Your task to perform on an android device: change the clock display to digital Image 0: 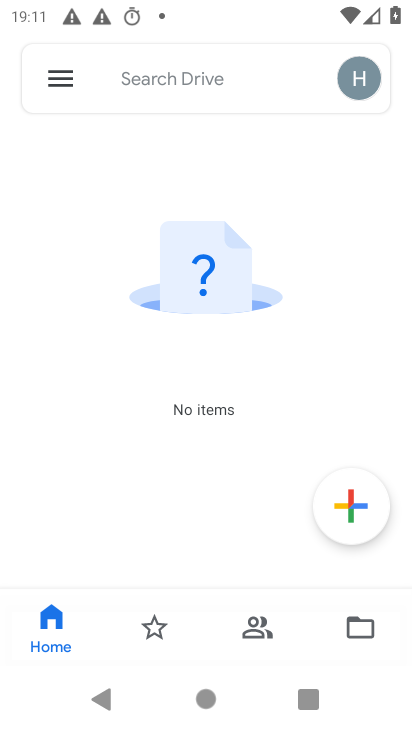
Step 0: press home button
Your task to perform on an android device: change the clock display to digital Image 1: 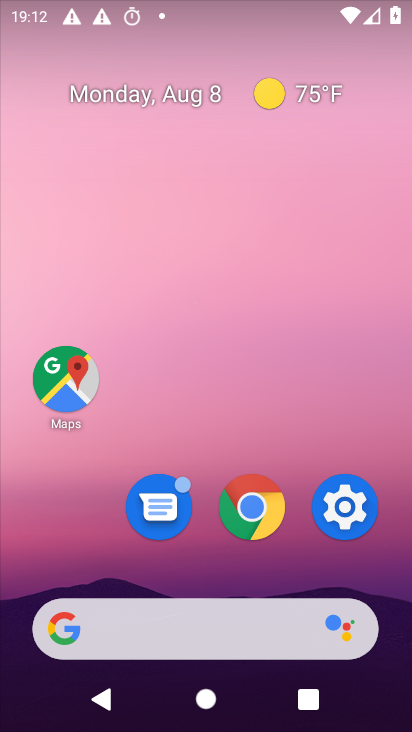
Step 1: drag from (228, 671) to (244, 173)
Your task to perform on an android device: change the clock display to digital Image 2: 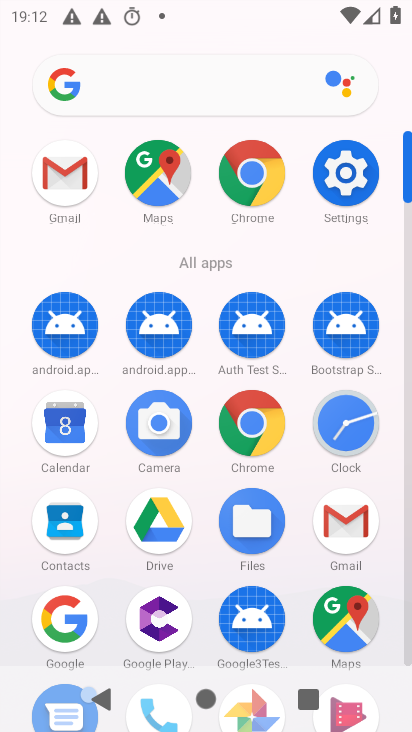
Step 2: click (345, 176)
Your task to perform on an android device: change the clock display to digital Image 3: 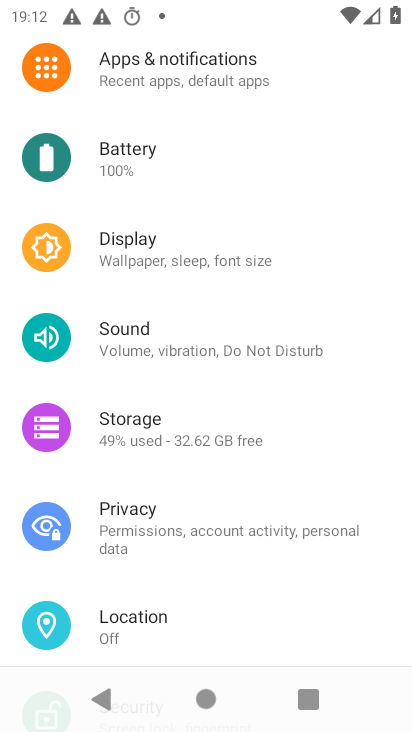
Step 3: press home button
Your task to perform on an android device: change the clock display to digital Image 4: 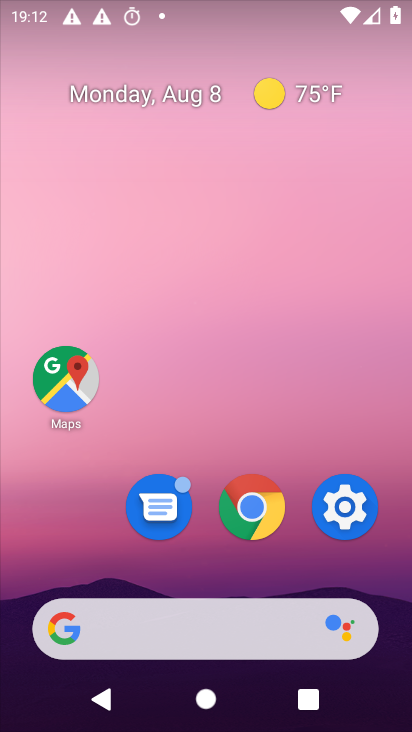
Step 4: drag from (289, 655) to (223, 217)
Your task to perform on an android device: change the clock display to digital Image 5: 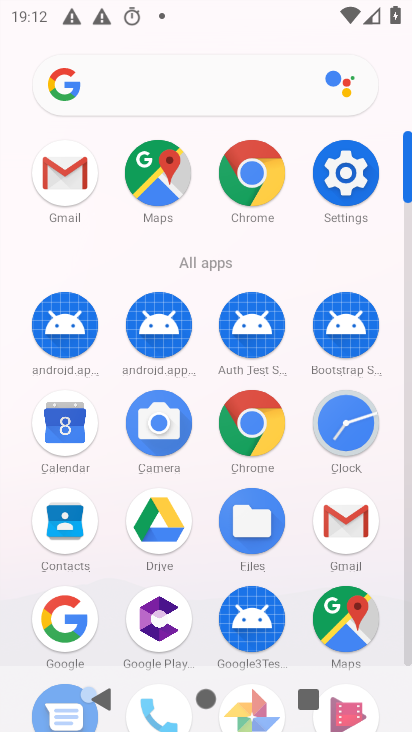
Step 5: click (359, 432)
Your task to perform on an android device: change the clock display to digital Image 6: 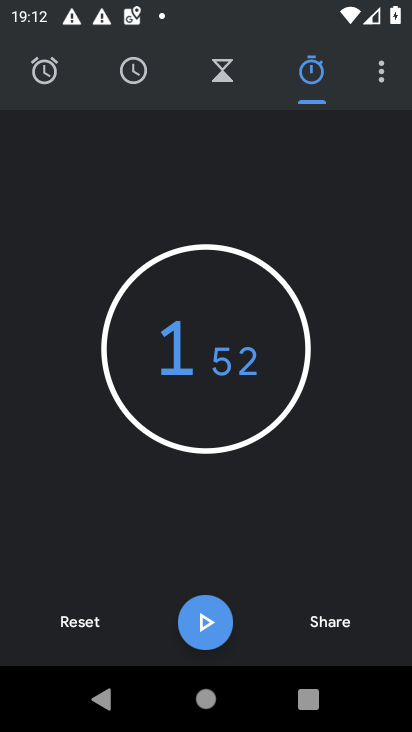
Step 6: click (378, 86)
Your task to perform on an android device: change the clock display to digital Image 7: 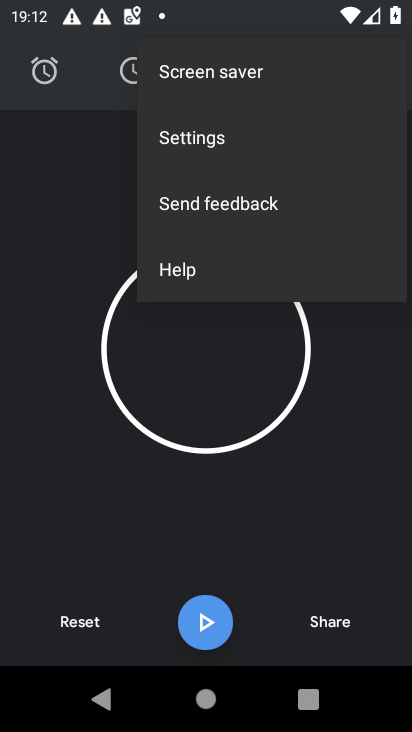
Step 7: click (250, 150)
Your task to perform on an android device: change the clock display to digital Image 8: 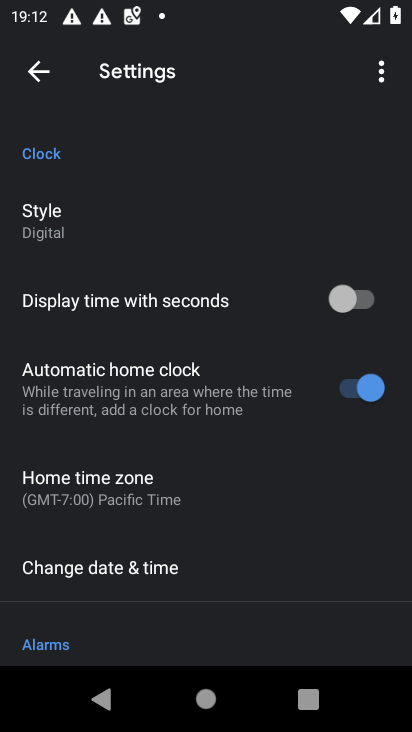
Step 8: click (111, 230)
Your task to perform on an android device: change the clock display to digital Image 9: 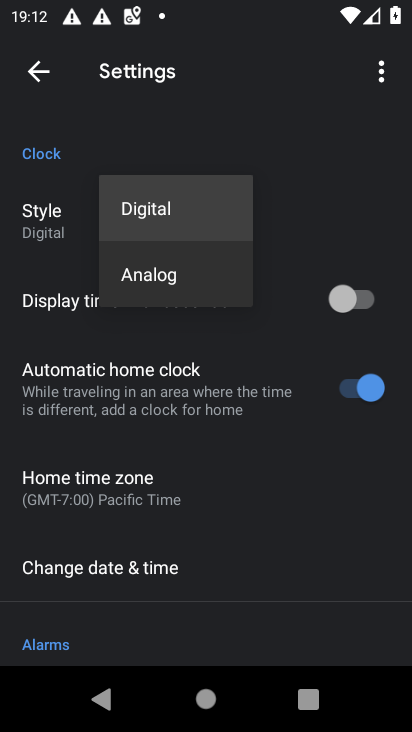
Step 9: click (139, 210)
Your task to perform on an android device: change the clock display to digital Image 10: 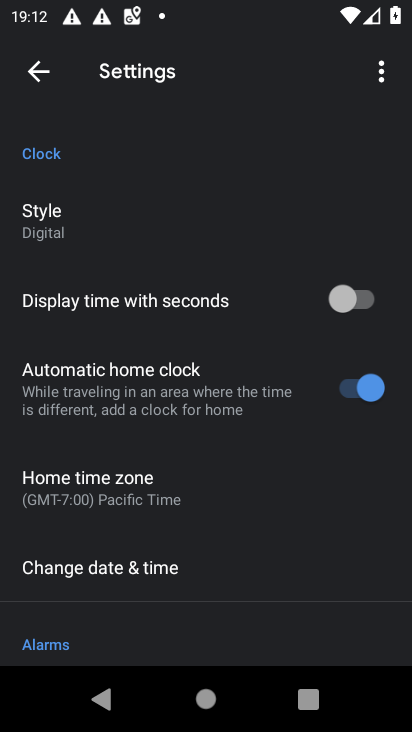
Step 10: task complete